Your task to perform on an android device: check data usage Image 0: 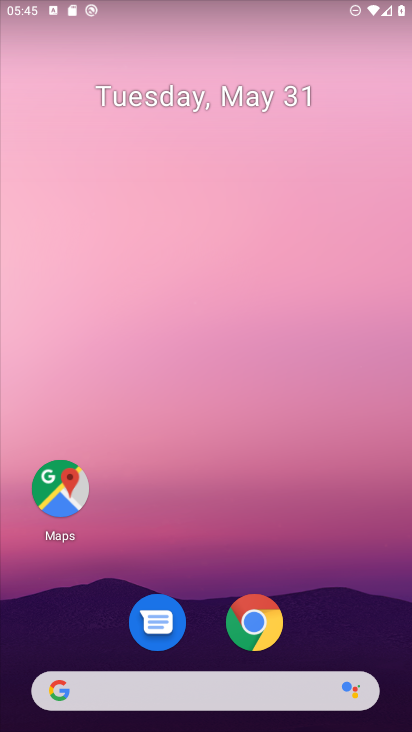
Step 0: drag from (345, 680) to (335, 61)
Your task to perform on an android device: check data usage Image 1: 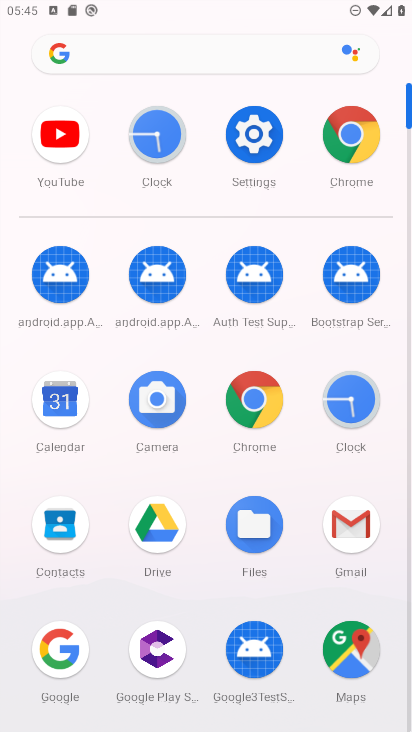
Step 1: click (254, 142)
Your task to perform on an android device: check data usage Image 2: 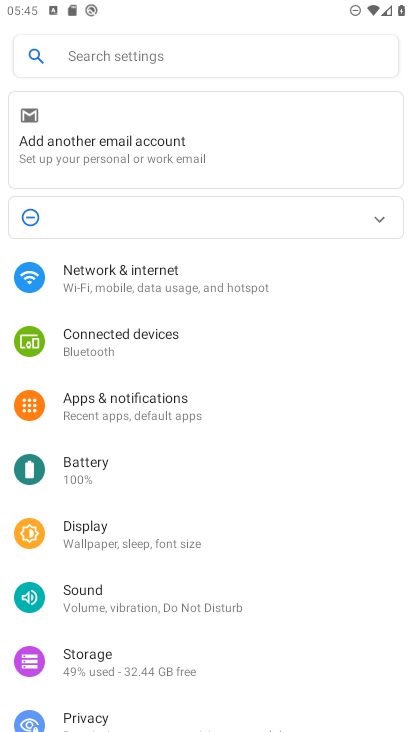
Step 2: click (156, 266)
Your task to perform on an android device: check data usage Image 3: 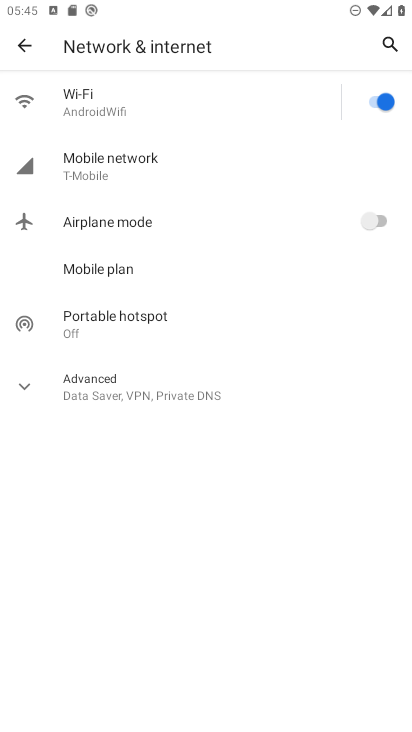
Step 3: click (132, 168)
Your task to perform on an android device: check data usage Image 4: 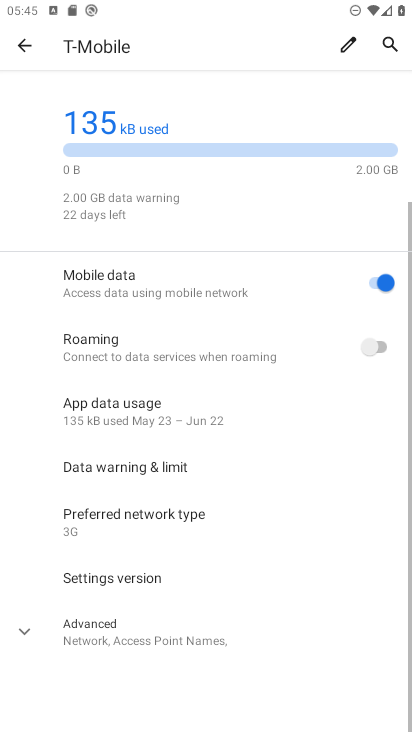
Step 4: task complete